Your task to perform on an android device: Go to Google maps Image 0: 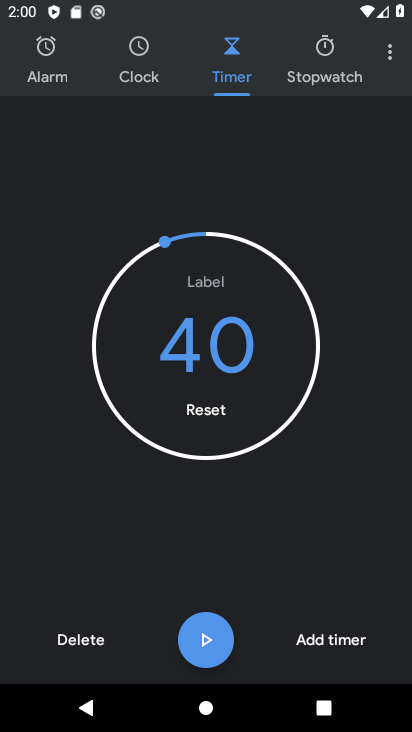
Step 0: press home button
Your task to perform on an android device: Go to Google maps Image 1: 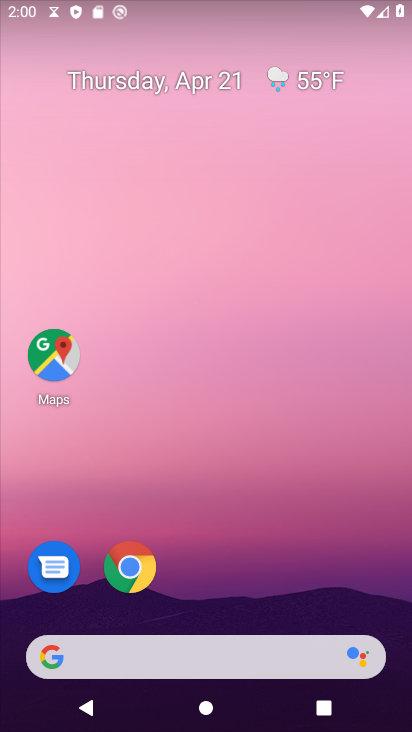
Step 1: drag from (207, 655) to (313, 286)
Your task to perform on an android device: Go to Google maps Image 2: 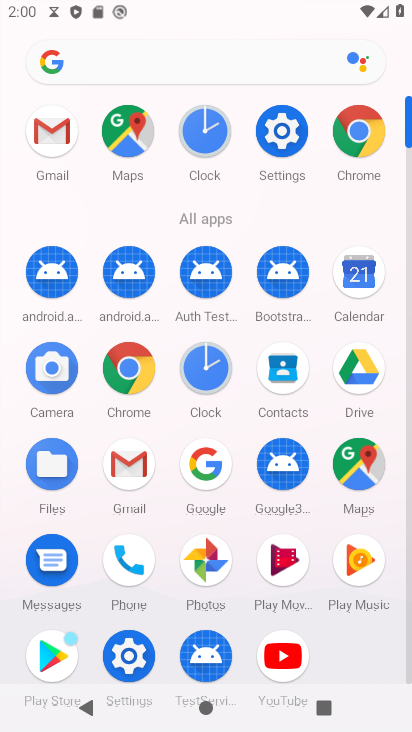
Step 2: click (354, 479)
Your task to perform on an android device: Go to Google maps Image 3: 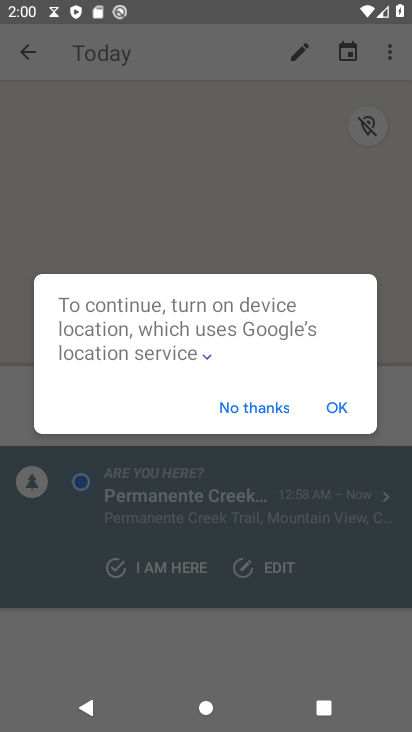
Step 3: click (329, 410)
Your task to perform on an android device: Go to Google maps Image 4: 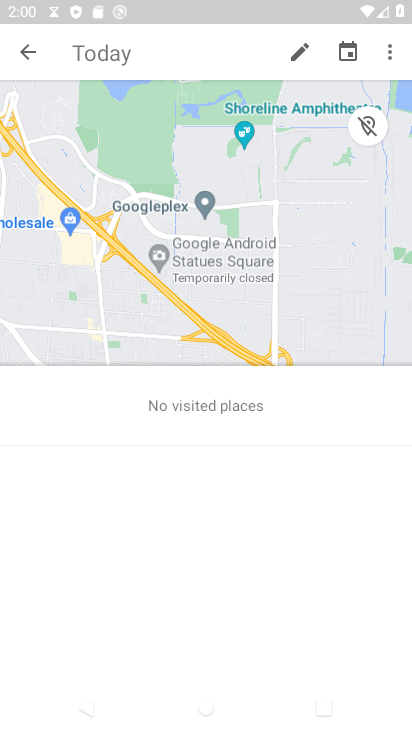
Step 4: task complete